Your task to perform on an android device: turn notification dots off Image 0: 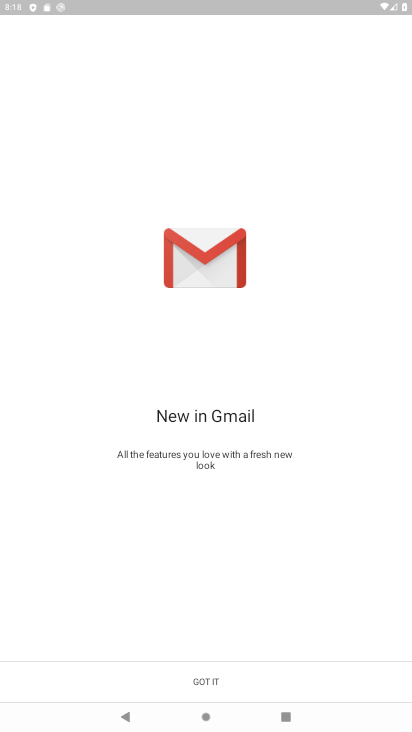
Step 0: press home button
Your task to perform on an android device: turn notification dots off Image 1: 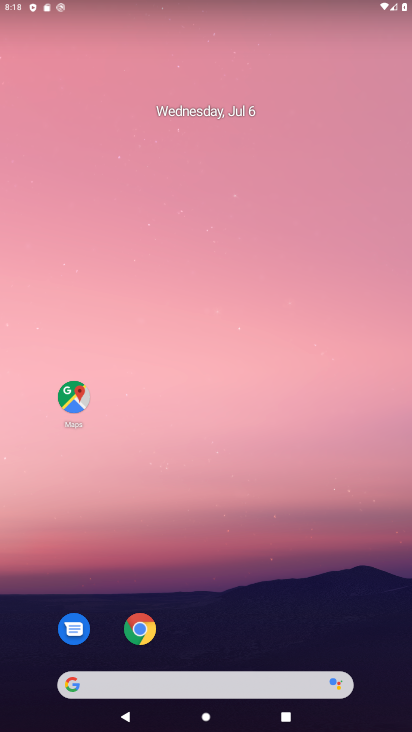
Step 1: drag from (17, 681) to (276, 67)
Your task to perform on an android device: turn notification dots off Image 2: 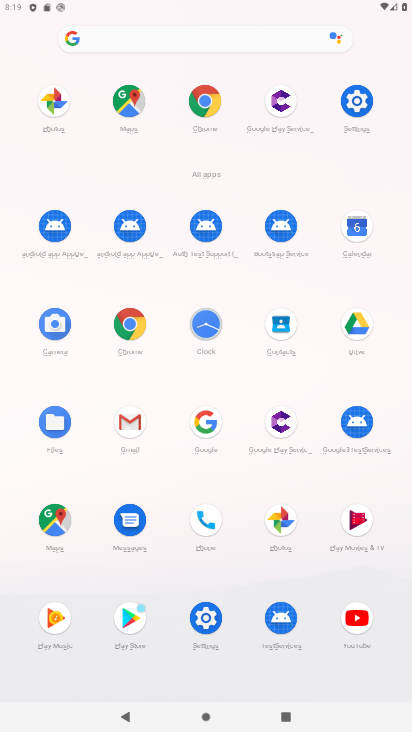
Step 2: click (338, 104)
Your task to perform on an android device: turn notification dots off Image 3: 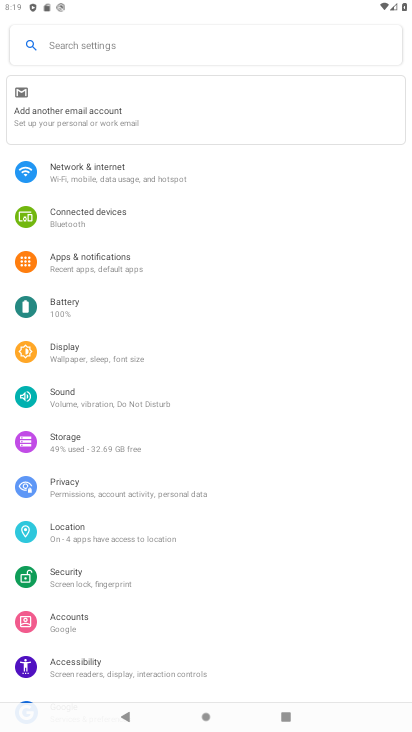
Step 3: click (155, 256)
Your task to perform on an android device: turn notification dots off Image 4: 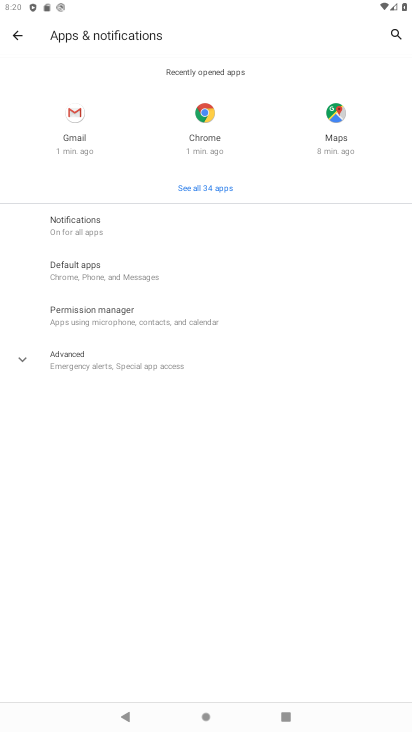
Step 4: click (78, 224)
Your task to perform on an android device: turn notification dots off Image 5: 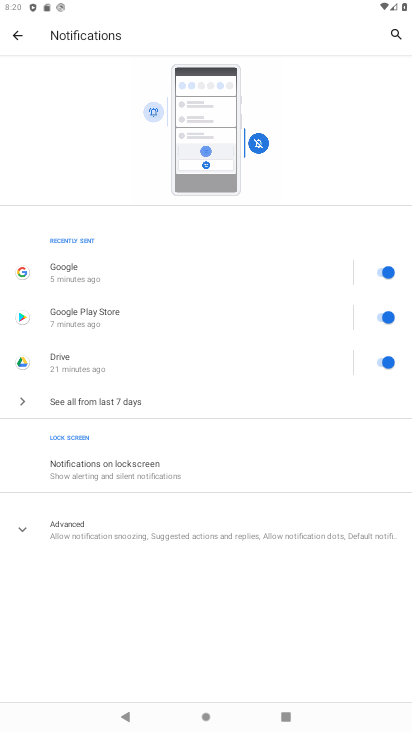
Step 5: click (168, 526)
Your task to perform on an android device: turn notification dots off Image 6: 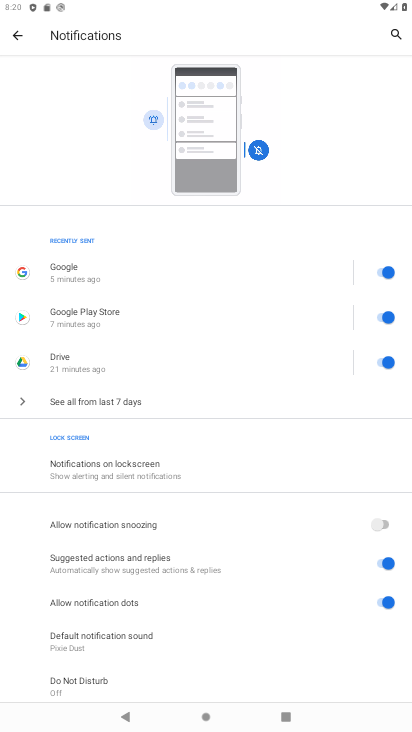
Step 6: click (391, 600)
Your task to perform on an android device: turn notification dots off Image 7: 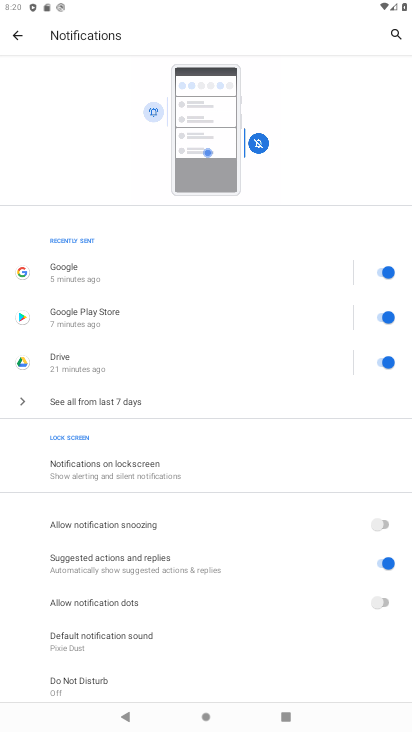
Step 7: task complete